Your task to perform on an android device: turn on sleep mode Image 0: 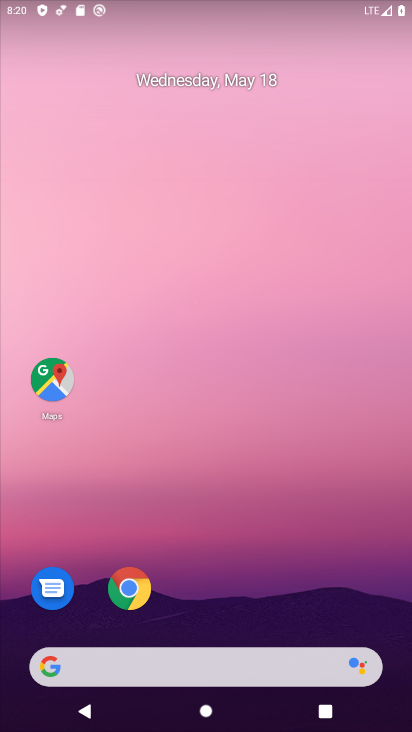
Step 0: drag from (299, 608) to (235, 5)
Your task to perform on an android device: turn on sleep mode Image 1: 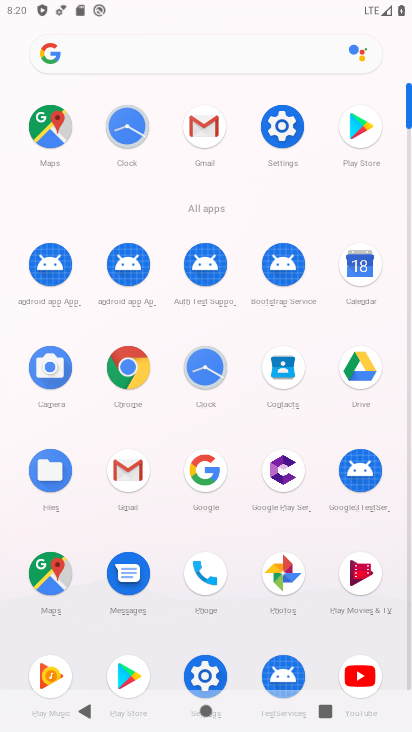
Step 1: click (280, 121)
Your task to perform on an android device: turn on sleep mode Image 2: 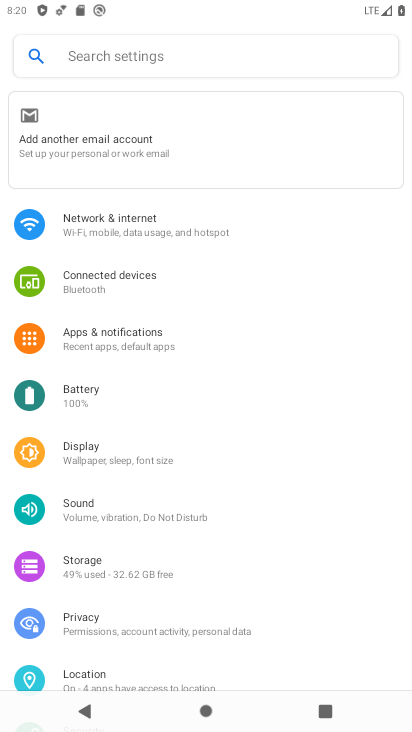
Step 2: click (77, 452)
Your task to perform on an android device: turn on sleep mode Image 3: 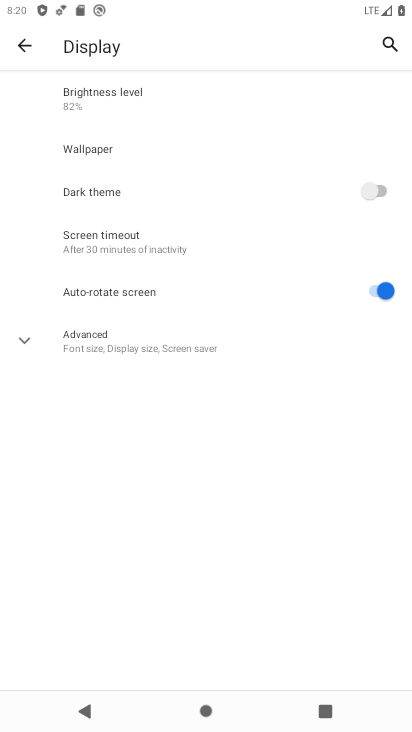
Step 3: click (22, 335)
Your task to perform on an android device: turn on sleep mode Image 4: 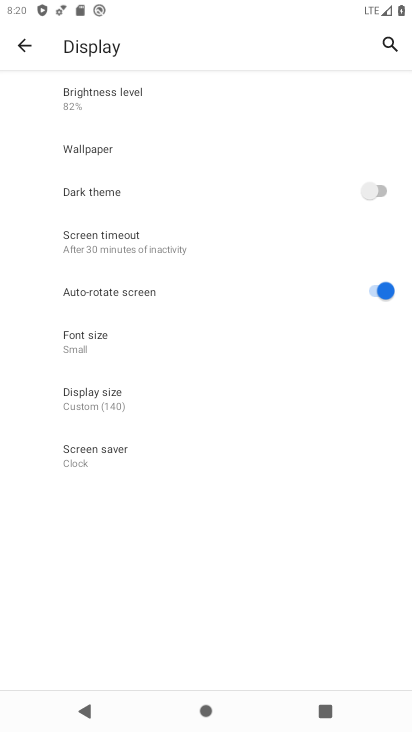
Step 4: task complete